Your task to perform on an android device: check google app version Image 0: 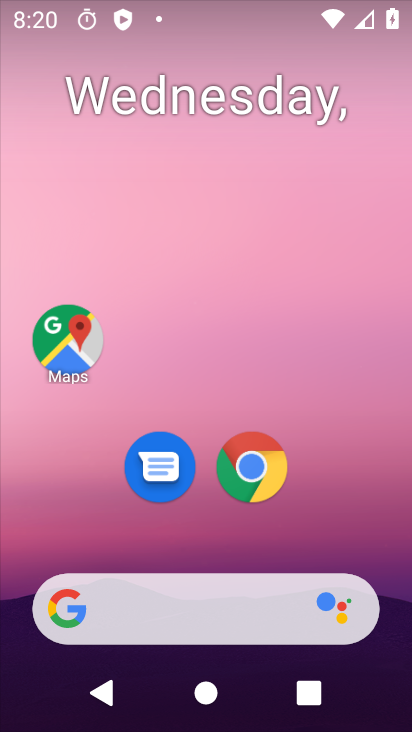
Step 0: drag from (386, 581) to (258, 184)
Your task to perform on an android device: check google app version Image 1: 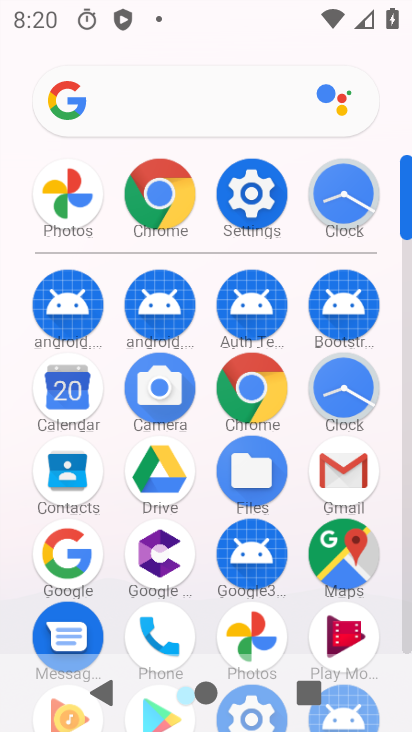
Step 1: click (52, 553)
Your task to perform on an android device: check google app version Image 2: 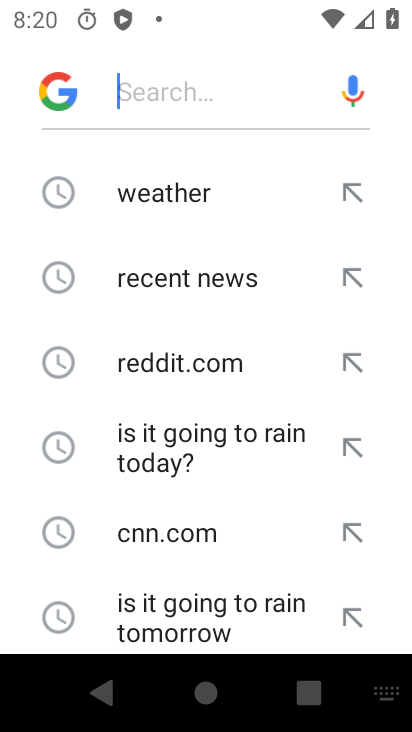
Step 2: press back button
Your task to perform on an android device: check google app version Image 3: 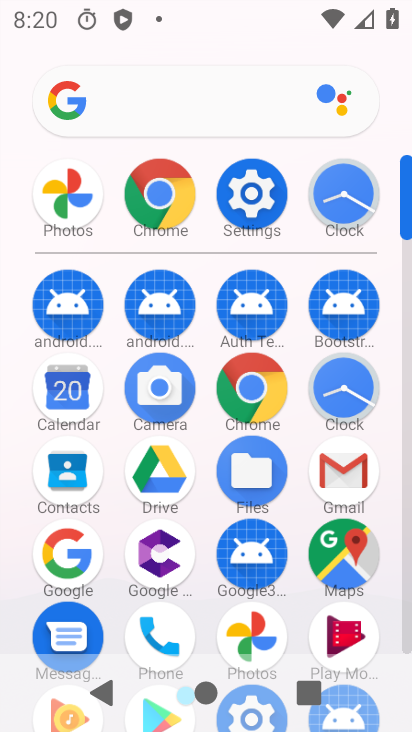
Step 3: click (66, 549)
Your task to perform on an android device: check google app version Image 4: 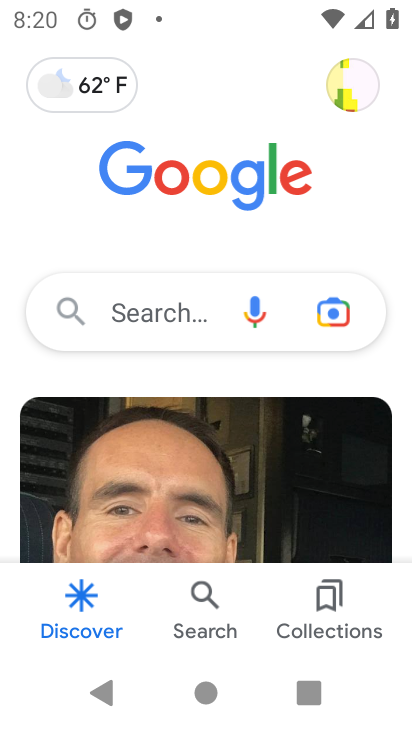
Step 4: click (325, 611)
Your task to perform on an android device: check google app version Image 5: 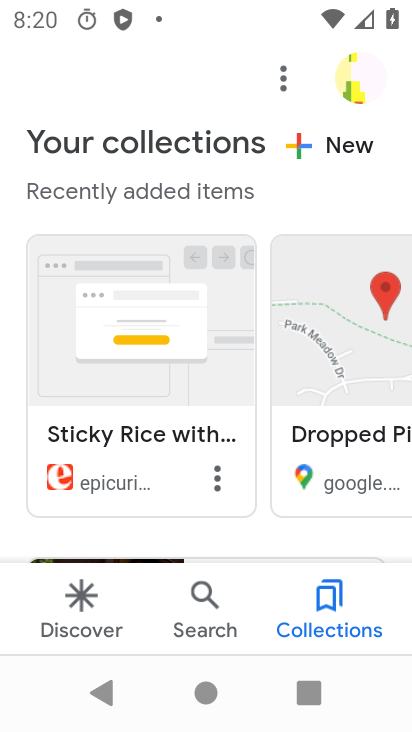
Step 5: press back button
Your task to perform on an android device: check google app version Image 6: 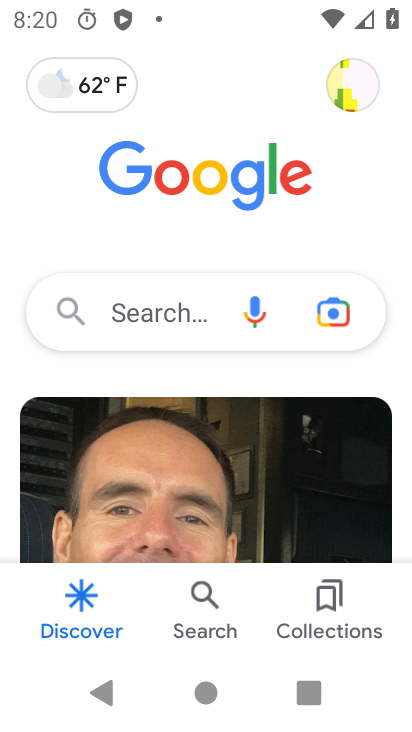
Step 6: click (343, 90)
Your task to perform on an android device: check google app version Image 7: 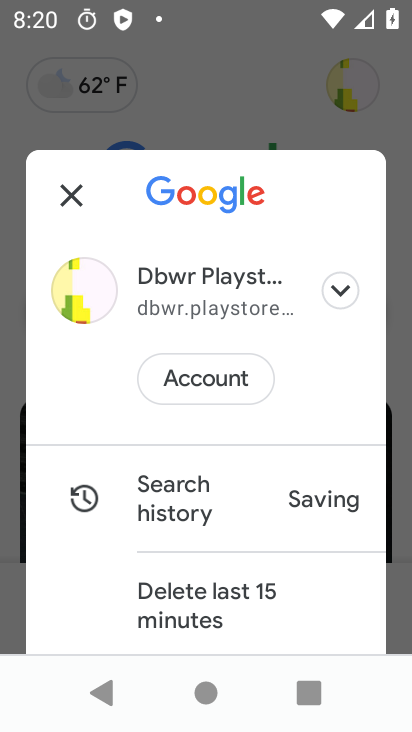
Step 7: task complete